Your task to perform on an android device: move an email to a new category in the gmail app Image 0: 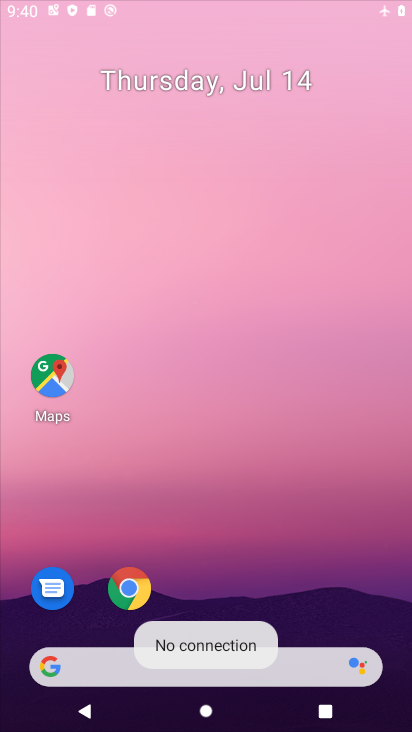
Step 0: click (209, 50)
Your task to perform on an android device: move an email to a new category in the gmail app Image 1: 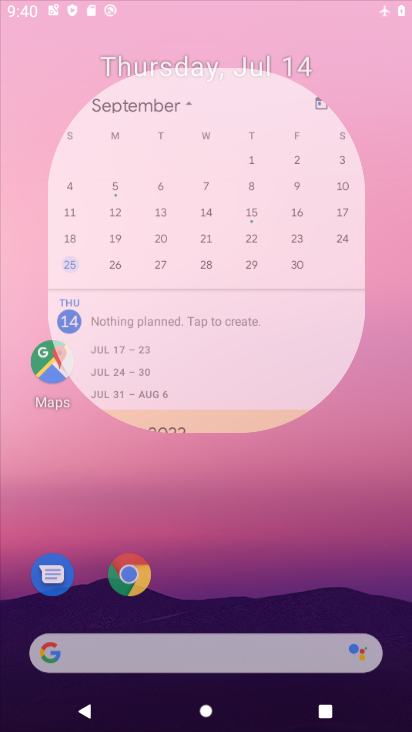
Step 1: drag from (397, 686) to (290, 63)
Your task to perform on an android device: move an email to a new category in the gmail app Image 2: 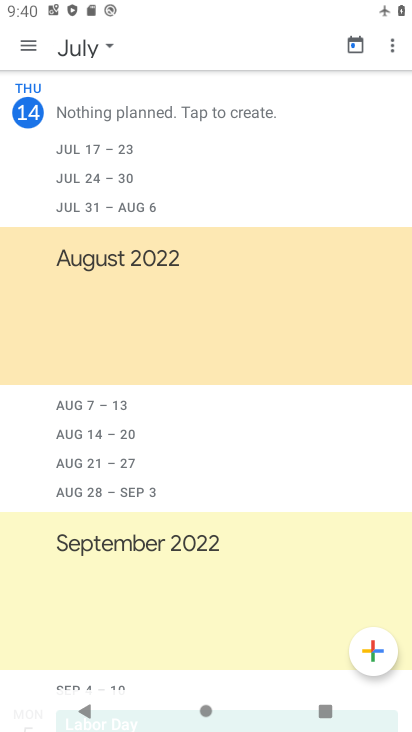
Step 2: press home button
Your task to perform on an android device: move an email to a new category in the gmail app Image 3: 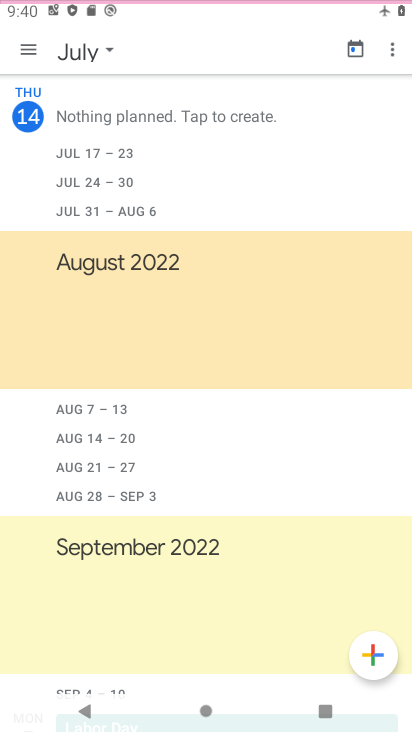
Step 3: drag from (333, 698) to (246, 17)
Your task to perform on an android device: move an email to a new category in the gmail app Image 4: 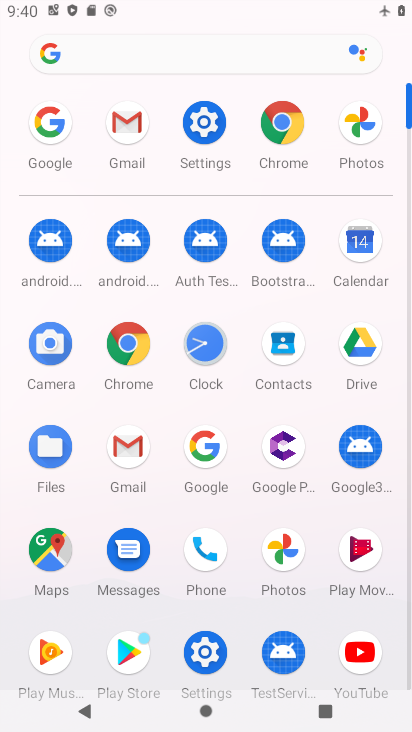
Step 4: click (119, 452)
Your task to perform on an android device: move an email to a new category in the gmail app Image 5: 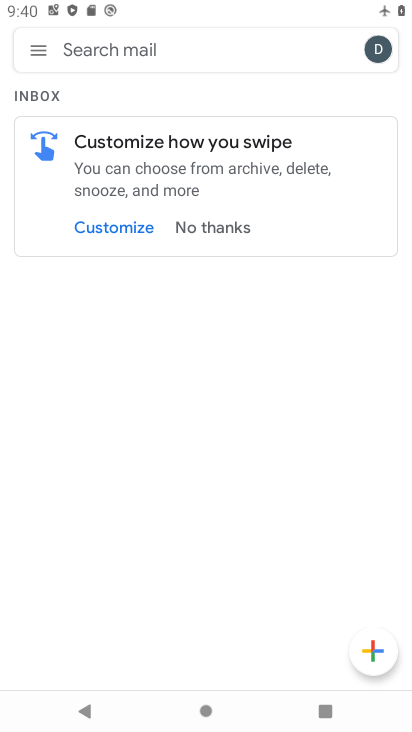
Step 5: task complete